Your task to perform on an android device: change your default location settings in chrome Image 0: 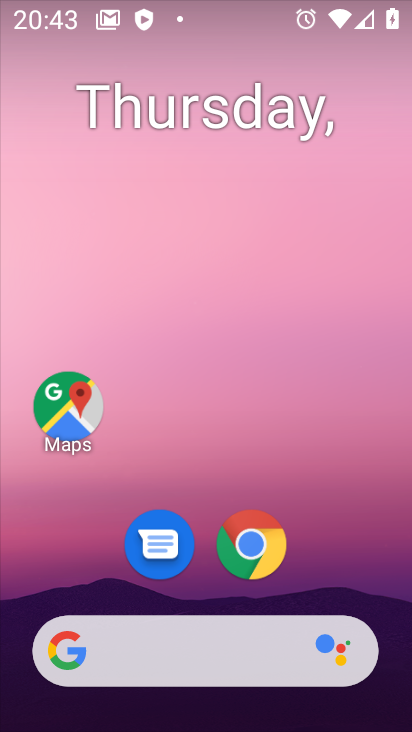
Step 0: click (249, 543)
Your task to perform on an android device: change your default location settings in chrome Image 1: 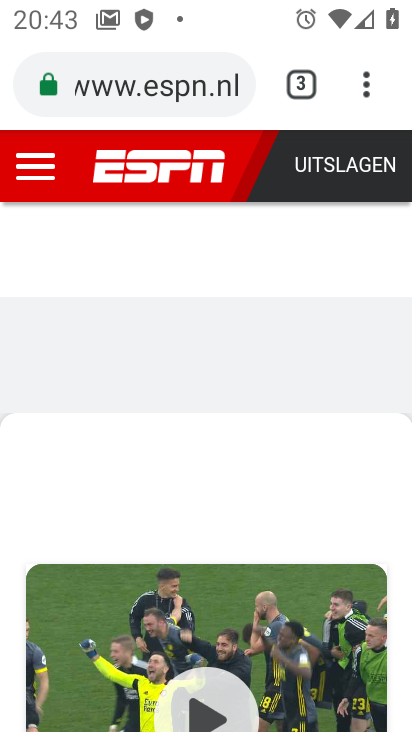
Step 1: click (360, 72)
Your task to perform on an android device: change your default location settings in chrome Image 2: 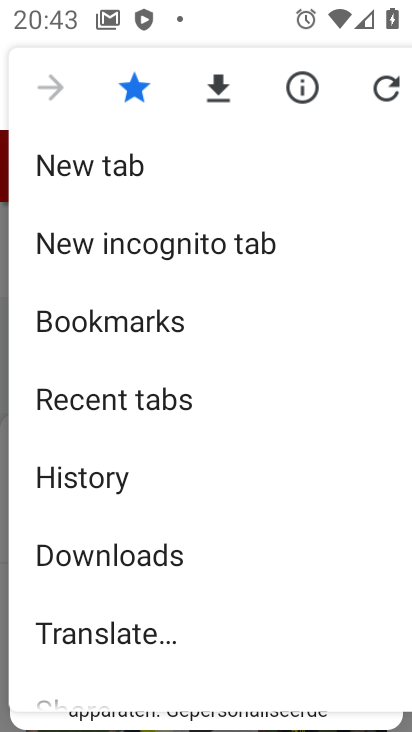
Step 2: drag from (93, 683) to (213, 97)
Your task to perform on an android device: change your default location settings in chrome Image 3: 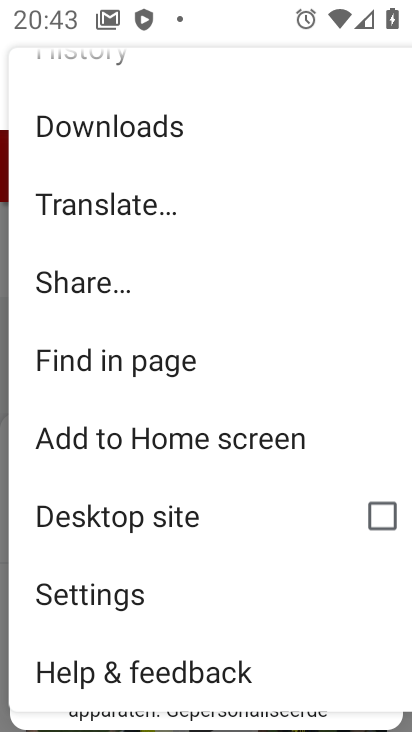
Step 3: click (199, 602)
Your task to perform on an android device: change your default location settings in chrome Image 4: 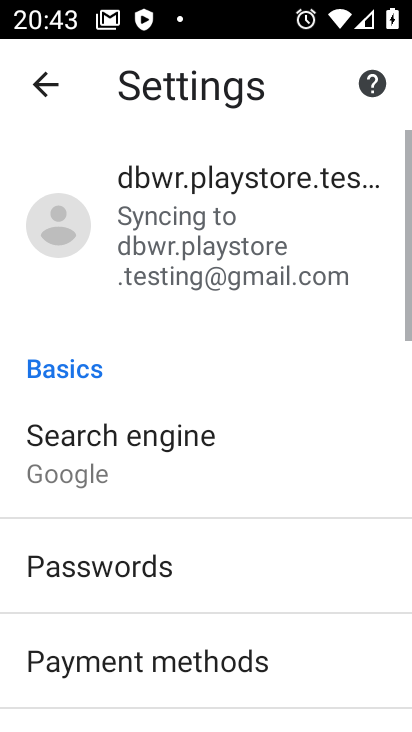
Step 4: drag from (199, 602) to (168, 176)
Your task to perform on an android device: change your default location settings in chrome Image 5: 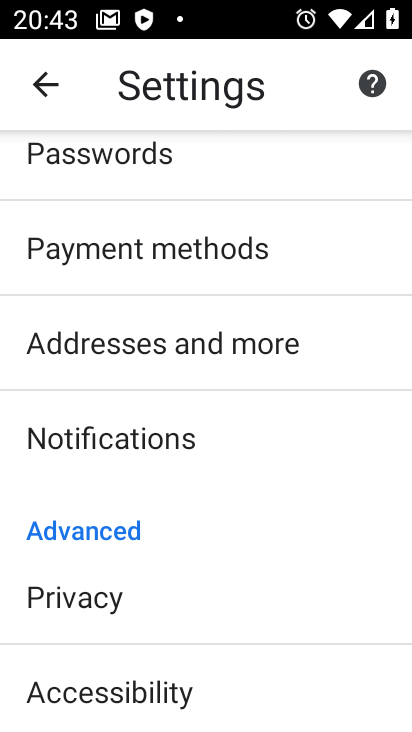
Step 5: drag from (107, 601) to (178, 138)
Your task to perform on an android device: change your default location settings in chrome Image 6: 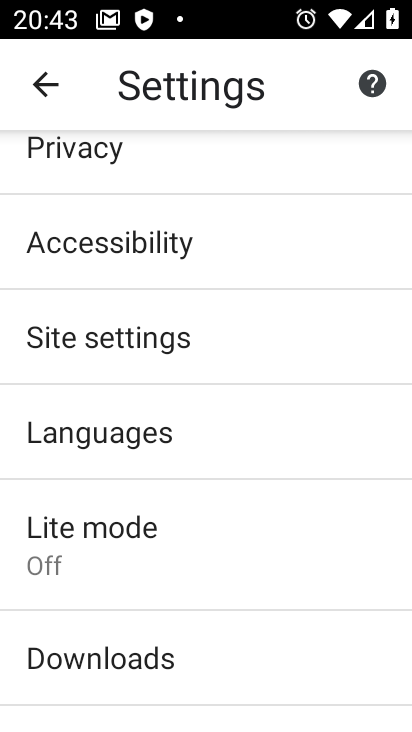
Step 6: click (169, 345)
Your task to perform on an android device: change your default location settings in chrome Image 7: 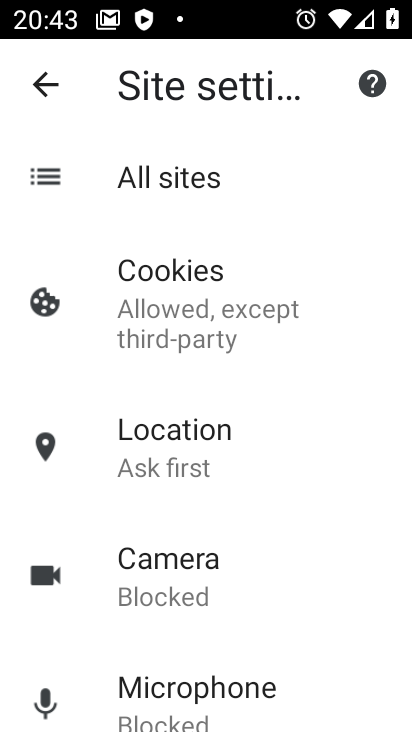
Step 7: click (120, 461)
Your task to perform on an android device: change your default location settings in chrome Image 8: 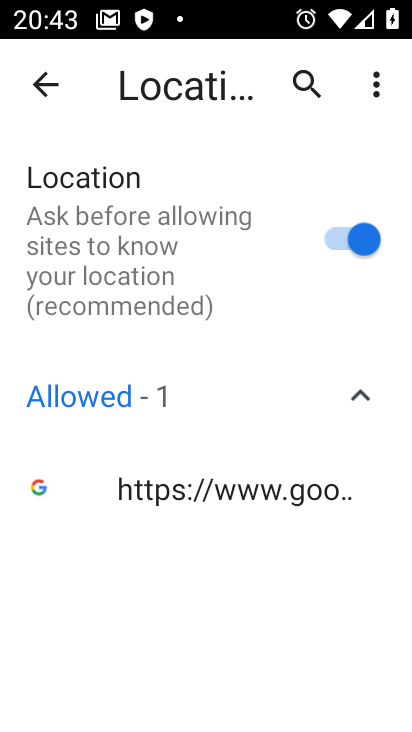
Step 8: click (341, 248)
Your task to perform on an android device: change your default location settings in chrome Image 9: 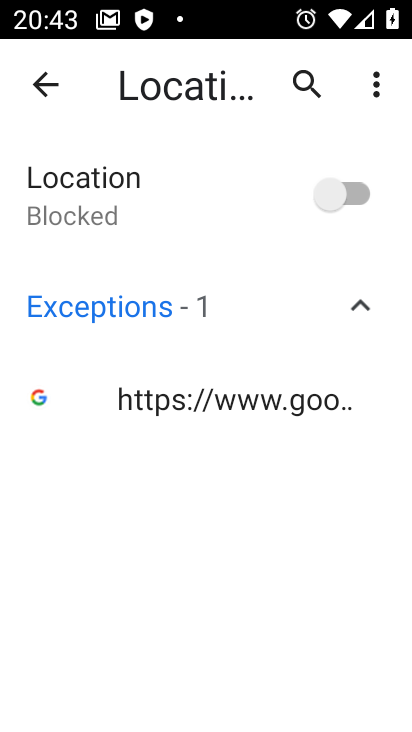
Step 9: task complete